Your task to perform on an android device: Open settings on Google Maps Image 0: 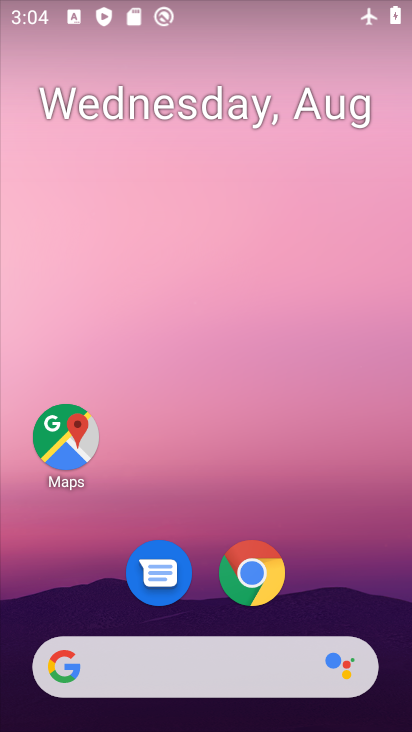
Step 0: click (65, 439)
Your task to perform on an android device: Open settings on Google Maps Image 1: 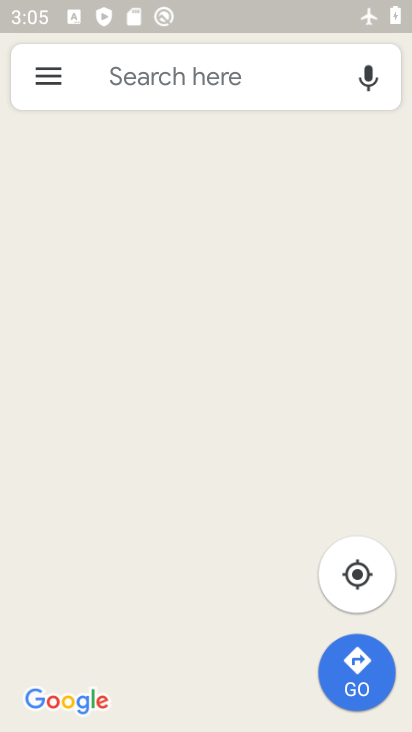
Step 1: click (51, 79)
Your task to perform on an android device: Open settings on Google Maps Image 2: 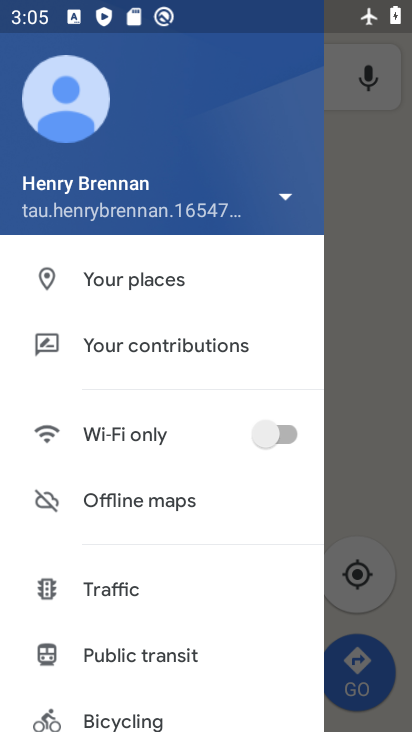
Step 2: drag from (123, 586) to (138, 99)
Your task to perform on an android device: Open settings on Google Maps Image 3: 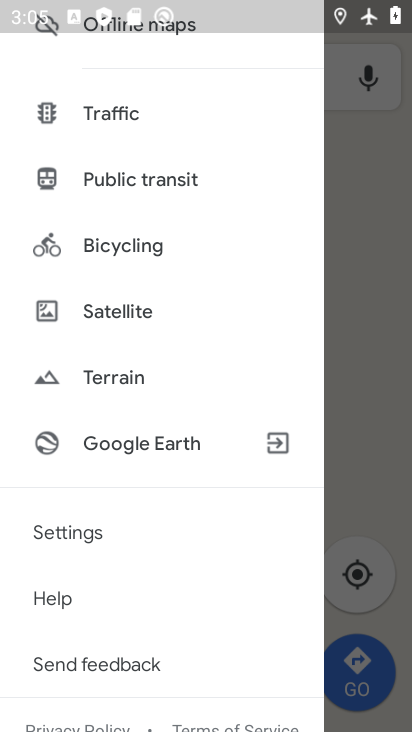
Step 3: click (93, 527)
Your task to perform on an android device: Open settings on Google Maps Image 4: 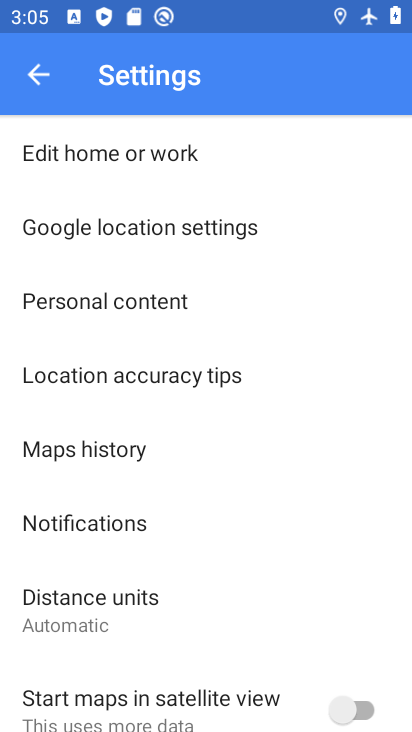
Step 4: task complete